Your task to perform on an android device: Open Wikipedia Image 0: 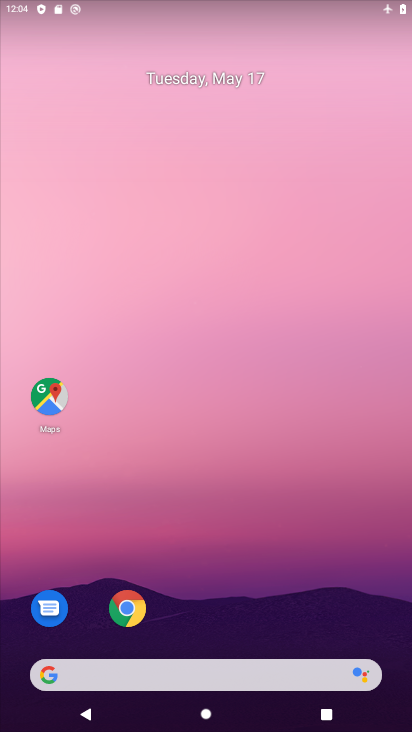
Step 0: click (122, 608)
Your task to perform on an android device: Open Wikipedia Image 1: 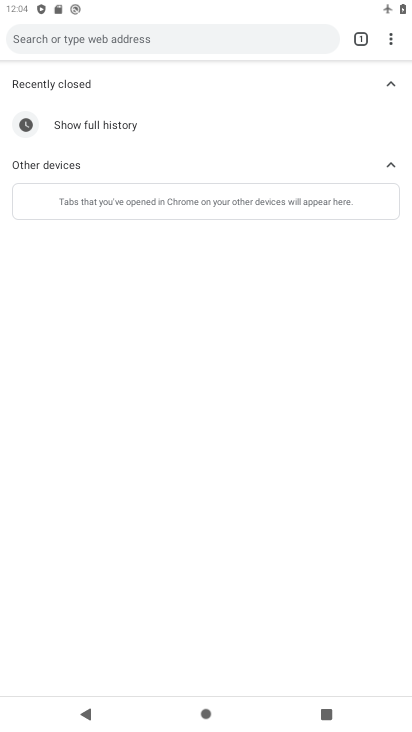
Step 1: press back button
Your task to perform on an android device: Open Wikipedia Image 2: 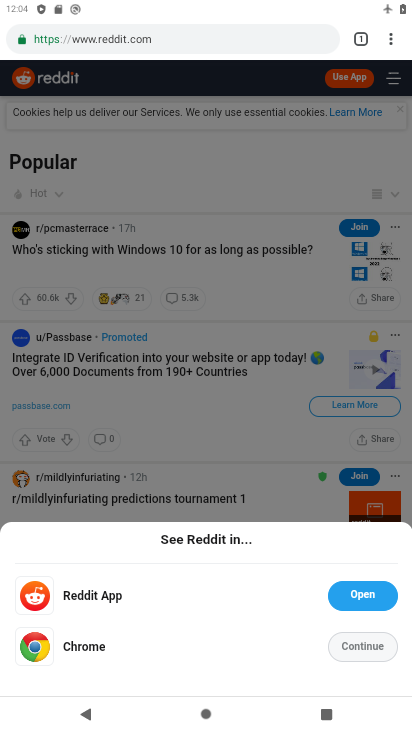
Step 2: press back button
Your task to perform on an android device: Open Wikipedia Image 3: 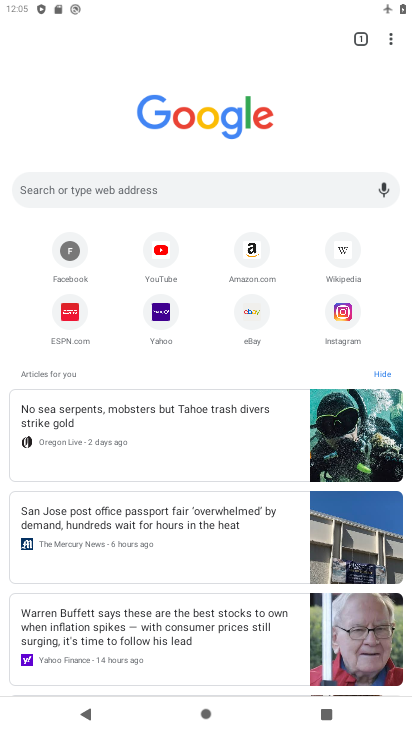
Step 3: click (336, 256)
Your task to perform on an android device: Open Wikipedia Image 4: 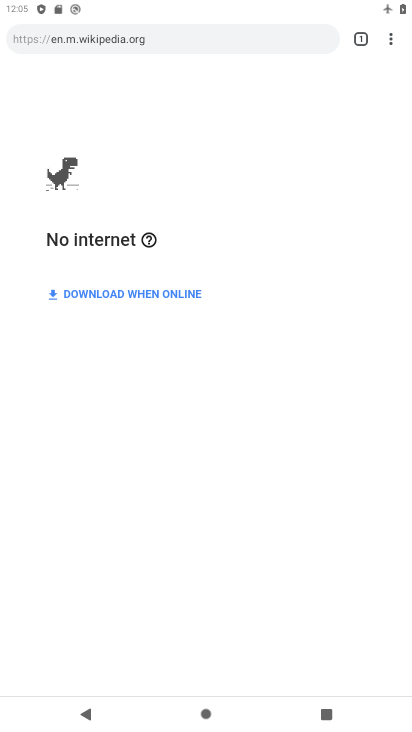
Step 4: task complete